Your task to perform on an android device: Go to Yahoo.com Image 0: 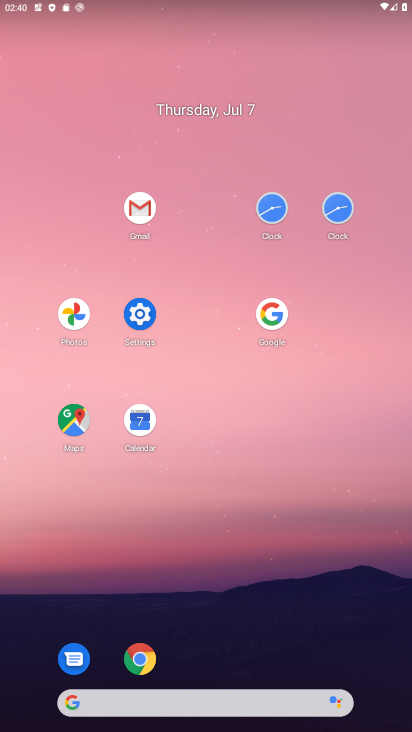
Step 0: click (138, 421)
Your task to perform on an android device: Go to Yahoo.com Image 1: 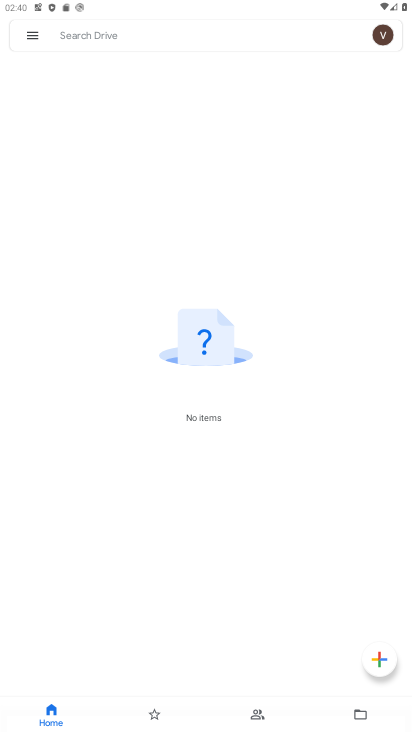
Step 1: press back button
Your task to perform on an android device: Go to Yahoo.com Image 2: 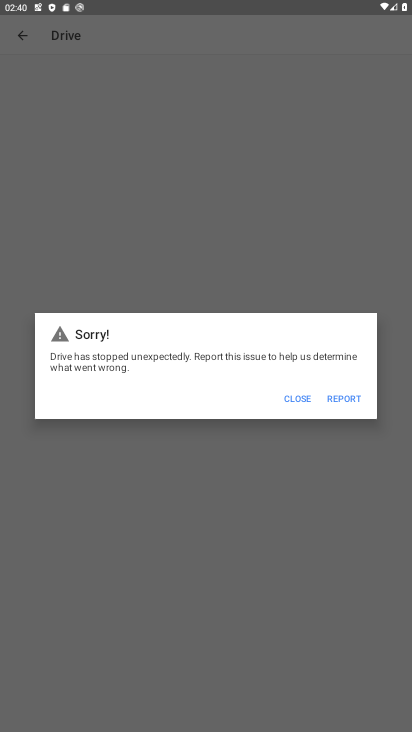
Step 2: press home button
Your task to perform on an android device: Go to Yahoo.com Image 3: 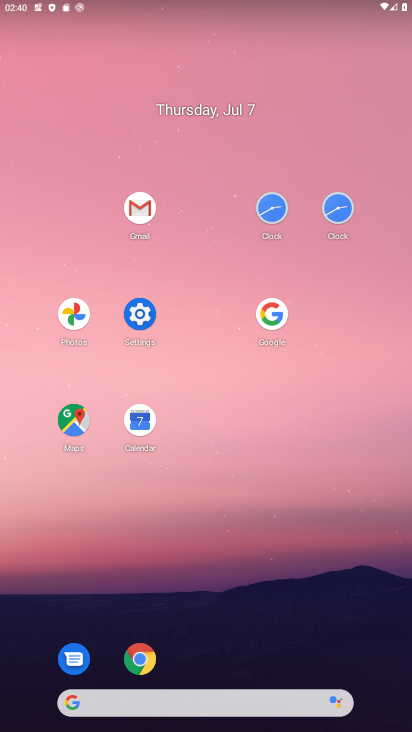
Step 3: click (133, 649)
Your task to perform on an android device: Go to Yahoo.com Image 4: 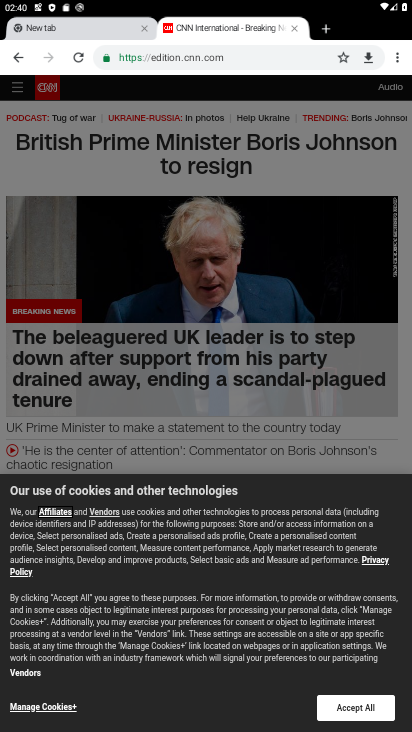
Step 4: click (325, 31)
Your task to perform on an android device: Go to Yahoo.com Image 5: 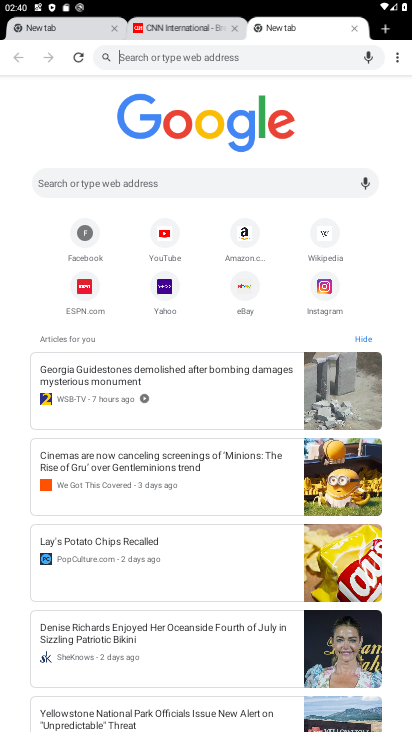
Step 5: click (161, 290)
Your task to perform on an android device: Go to Yahoo.com Image 6: 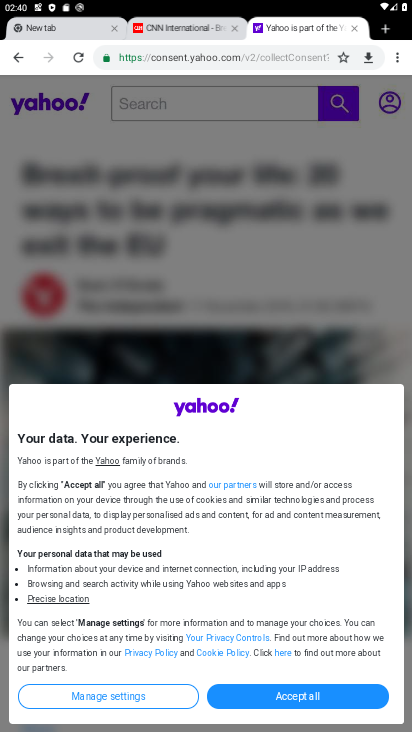
Step 6: task complete